Your task to perform on an android device: Set the phone to "Do not disturb". Image 0: 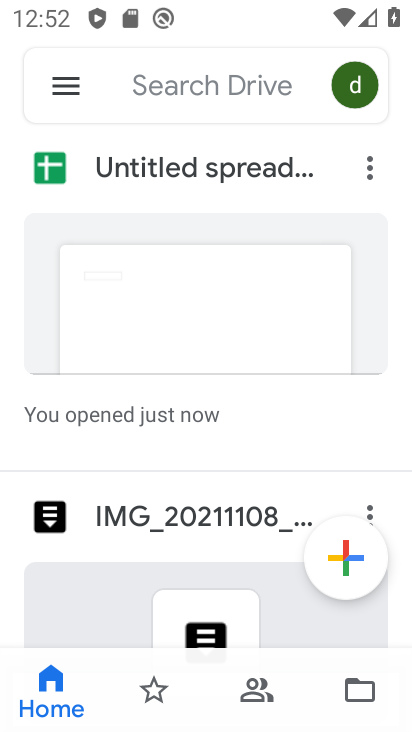
Step 0: press home button
Your task to perform on an android device: Set the phone to "Do not disturb". Image 1: 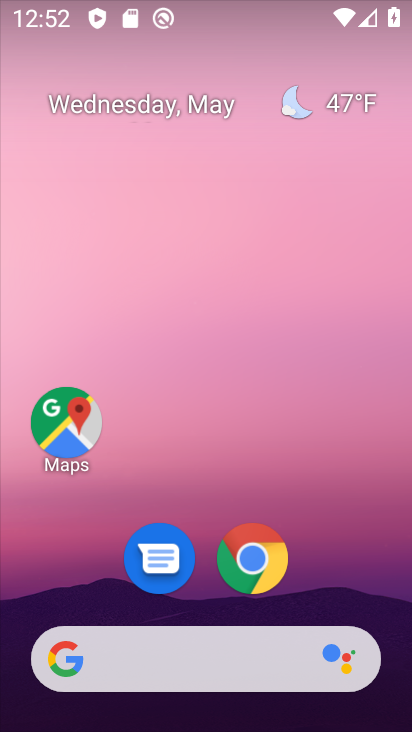
Step 1: drag from (229, 605) to (228, 13)
Your task to perform on an android device: Set the phone to "Do not disturb". Image 2: 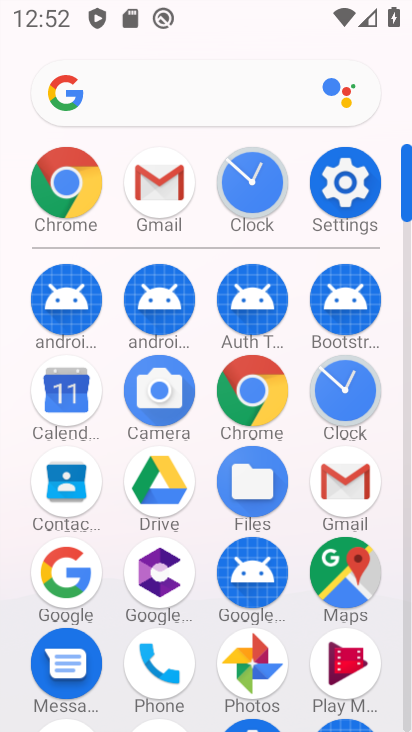
Step 2: click (341, 199)
Your task to perform on an android device: Set the phone to "Do not disturb". Image 3: 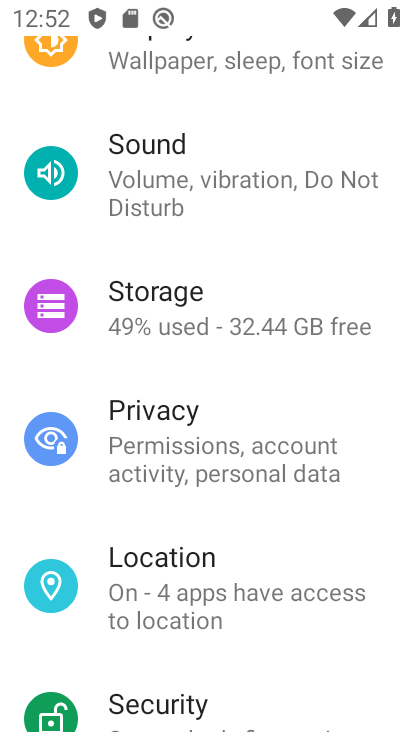
Step 3: click (162, 205)
Your task to perform on an android device: Set the phone to "Do not disturb". Image 4: 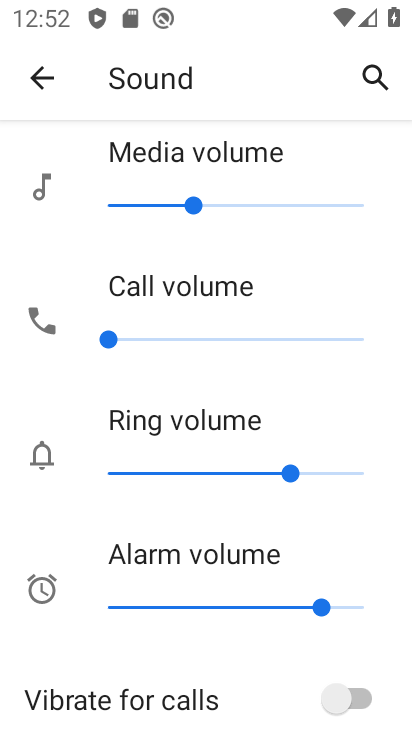
Step 4: drag from (224, 631) to (229, 21)
Your task to perform on an android device: Set the phone to "Do not disturb". Image 5: 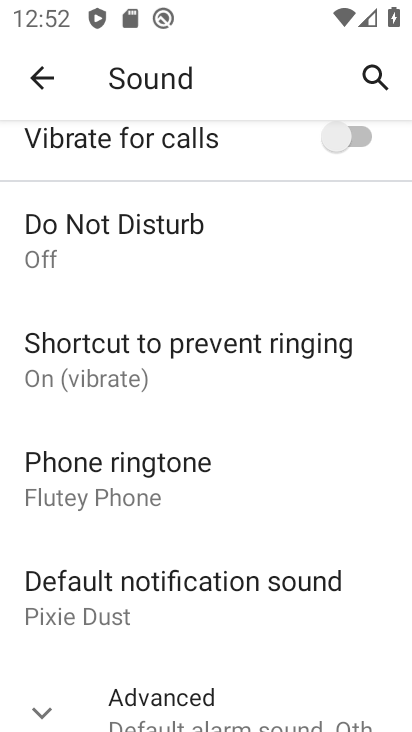
Step 5: click (145, 221)
Your task to perform on an android device: Set the phone to "Do not disturb". Image 6: 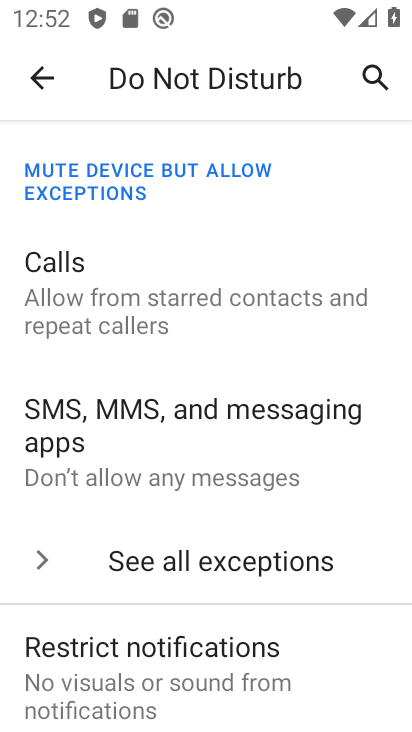
Step 6: drag from (178, 579) to (212, 100)
Your task to perform on an android device: Set the phone to "Do not disturb". Image 7: 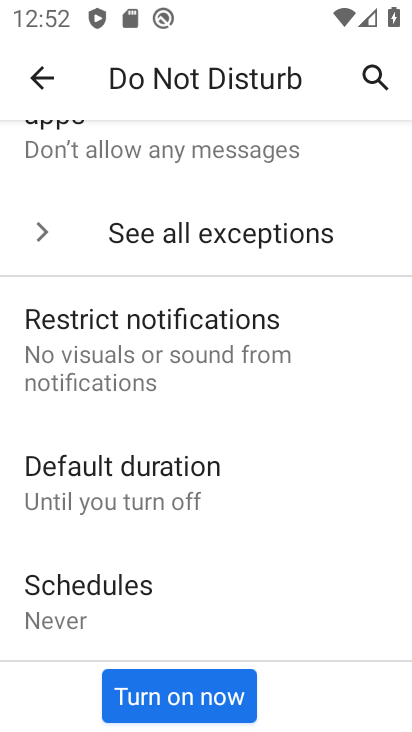
Step 7: click (168, 706)
Your task to perform on an android device: Set the phone to "Do not disturb". Image 8: 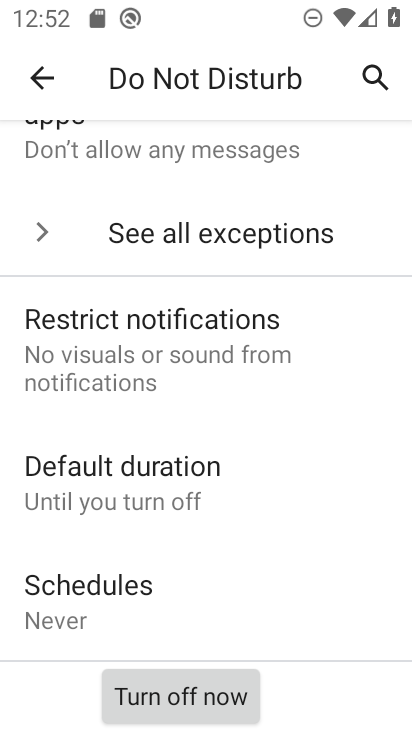
Step 8: task complete